Your task to perform on an android device: make emails show in primary in the gmail app Image 0: 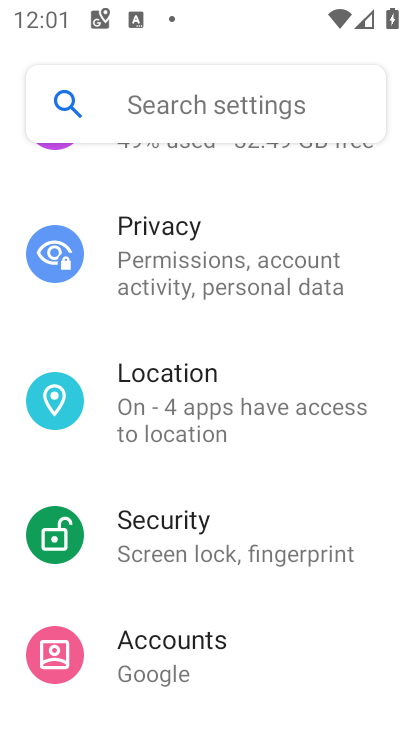
Step 0: press home button
Your task to perform on an android device: make emails show in primary in the gmail app Image 1: 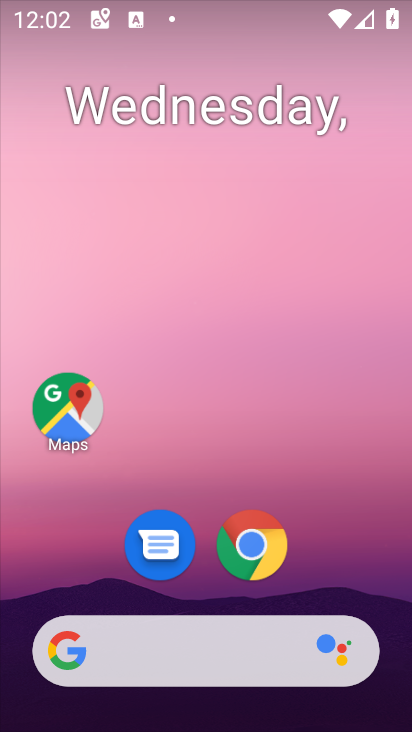
Step 1: drag from (195, 559) to (237, 211)
Your task to perform on an android device: make emails show in primary in the gmail app Image 2: 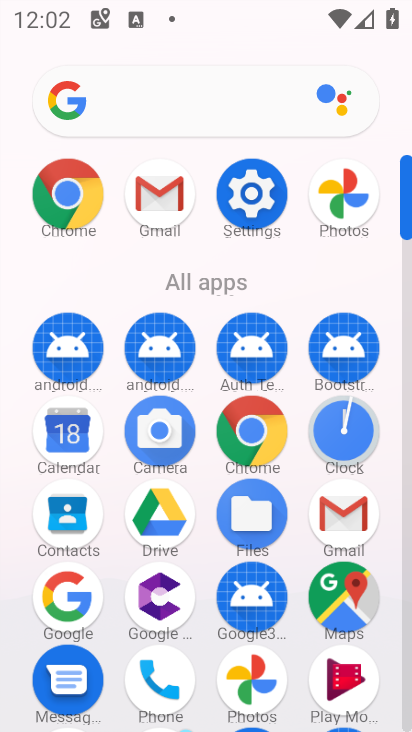
Step 2: click (149, 201)
Your task to perform on an android device: make emails show in primary in the gmail app Image 3: 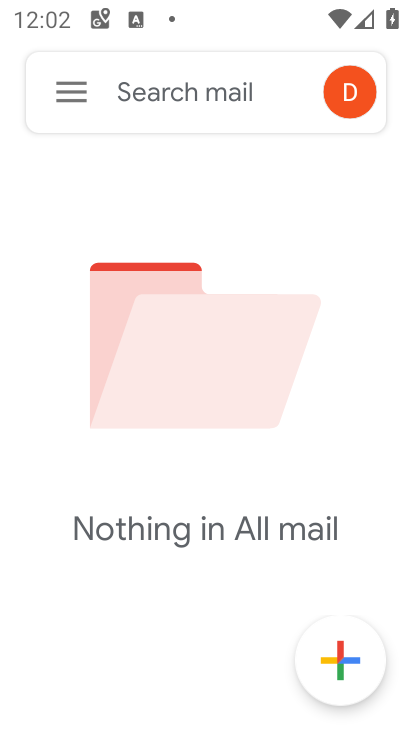
Step 3: click (70, 94)
Your task to perform on an android device: make emails show in primary in the gmail app Image 4: 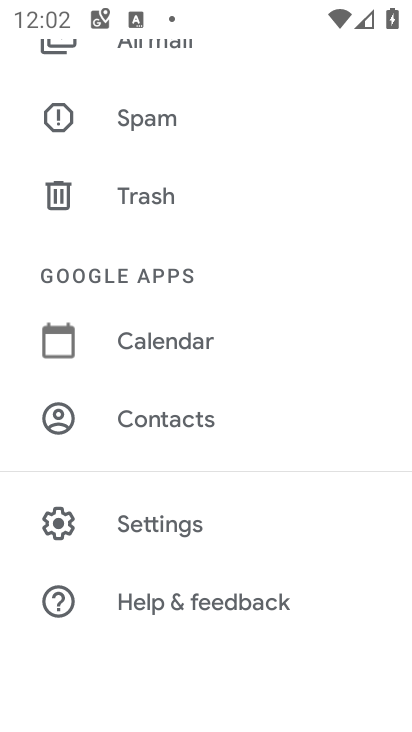
Step 4: click (191, 524)
Your task to perform on an android device: make emails show in primary in the gmail app Image 5: 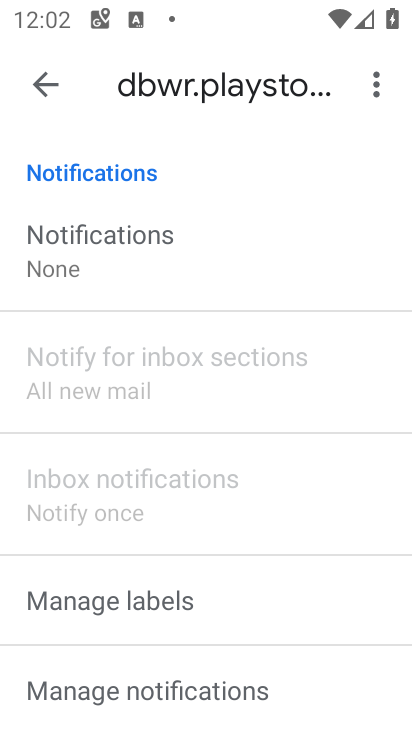
Step 5: drag from (187, 579) to (198, 709)
Your task to perform on an android device: make emails show in primary in the gmail app Image 6: 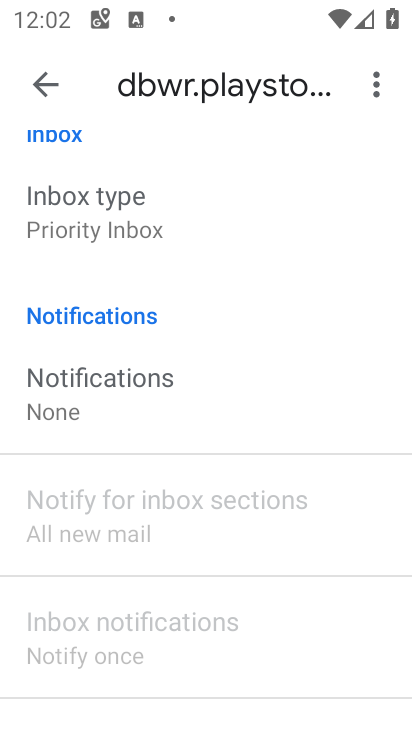
Step 6: click (124, 217)
Your task to perform on an android device: make emails show in primary in the gmail app Image 7: 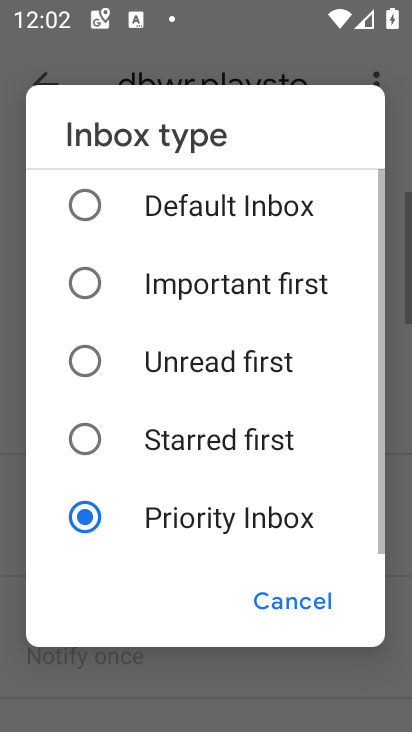
Step 7: click (138, 207)
Your task to perform on an android device: make emails show in primary in the gmail app Image 8: 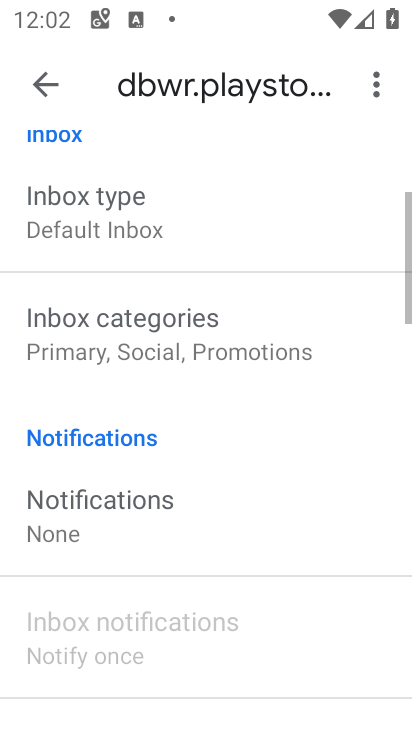
Step 8: click (47, 79)
Your task to perform on an android device: make emails show in primary in the gmail app Image 9: 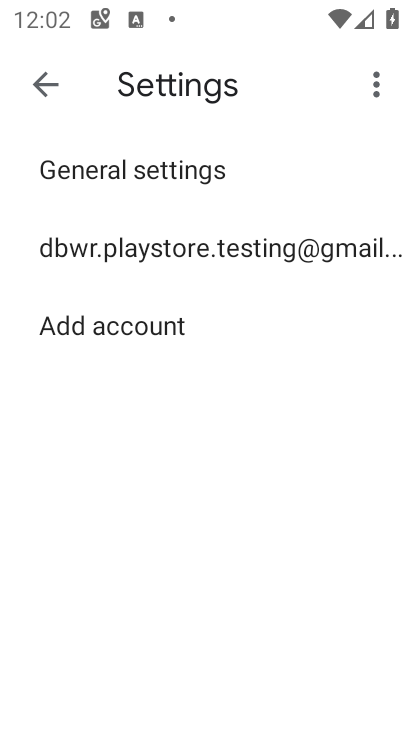
Step 9: click (47, 79)
Your task to perform on an android device: make emails show in primary in the gmail app Image 10: 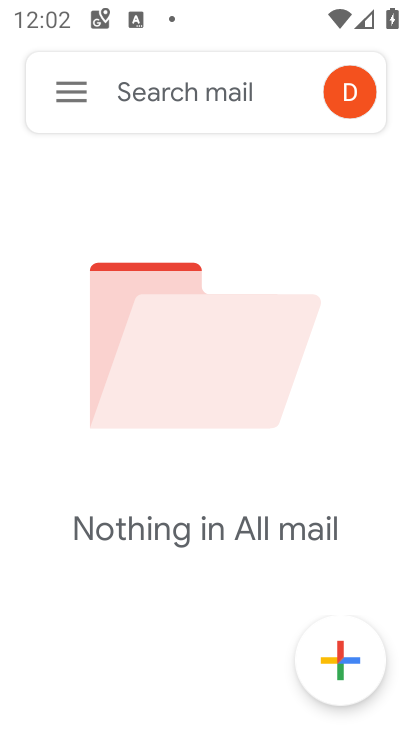
Step 10: click (59, 97)
Your task to perform on an android device: make emails show in primary in the gmail app Image 11: 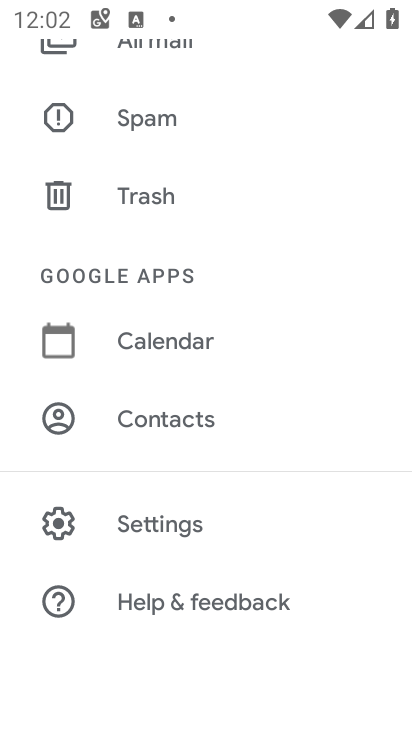
Step 11: drag from (210, 232) to (193, 607)
Your task to perform on an android device: make emails show in primary in the gmail app Image 12: 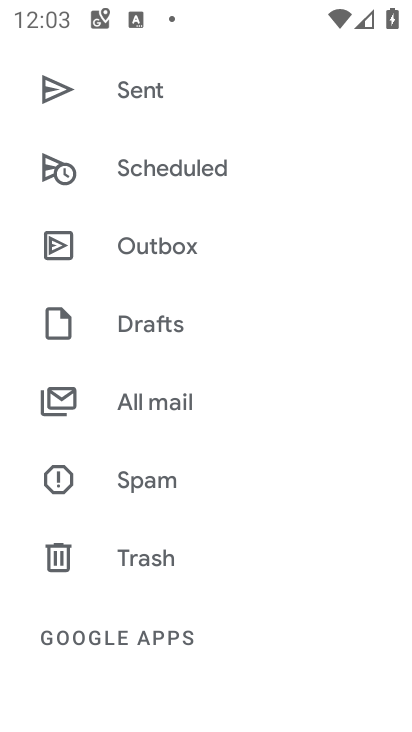
Step 12: drag from (214, 195) to (183, 605)
Your task to perform on an android device: make emails show in primary in the gmail app Image 13: 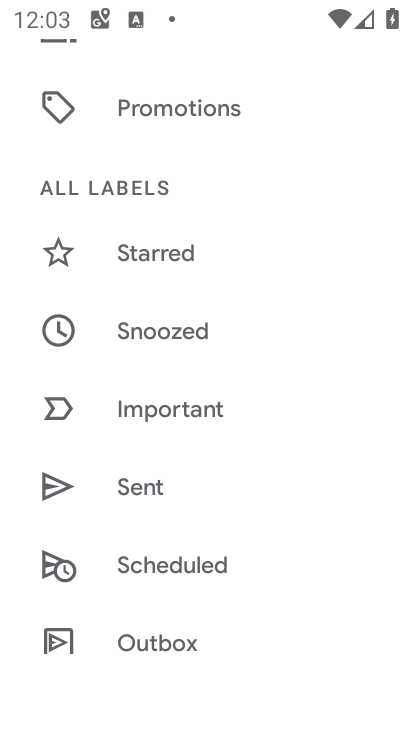
Step 13: drag from (190, 223) to (168, 544)
Your task to perform on an android device: make emails show in primary in the gmail app Image 14: 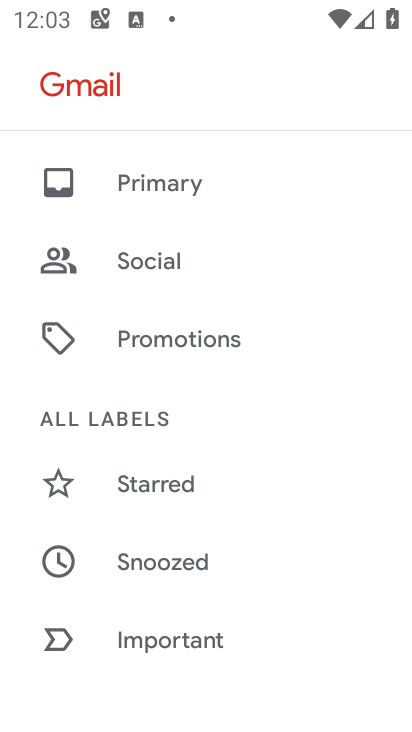
Step 14: click (172, 188)
Your task to perform on an android device: make emails show in primary in the gmail app Image 15: 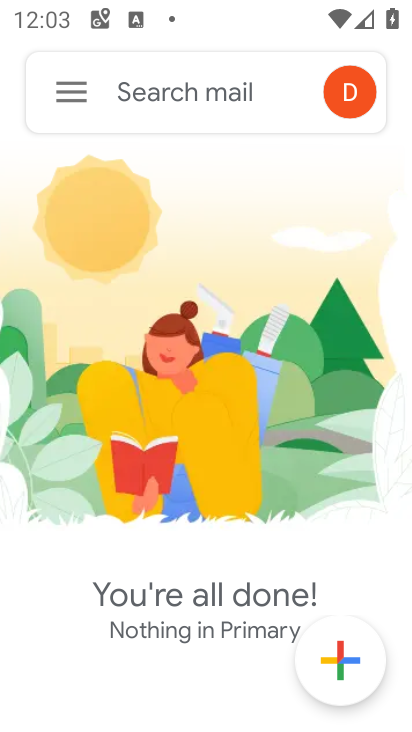
Step 15: task complete